Your task to perform on an android device: Open eBay Image 0: 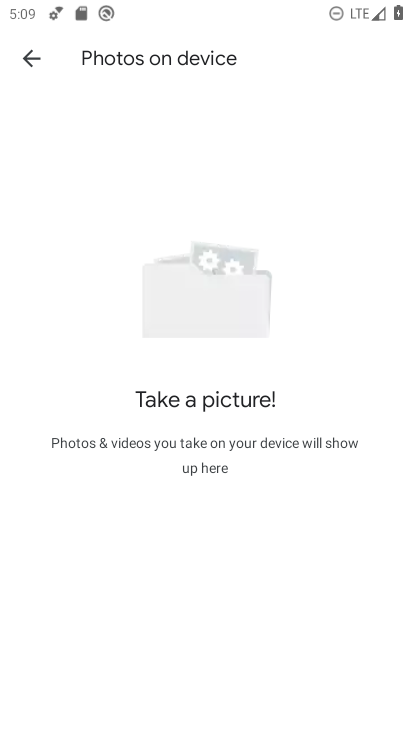
Step 0: press home button
Your task to perform on an android device: Open eBay Image 1: 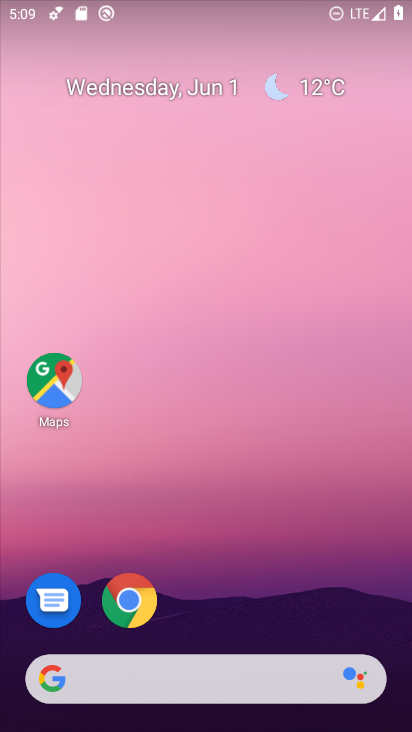
Step 1: click (130, 598)
Your task to perform on an android device: Open eBay Image 2: 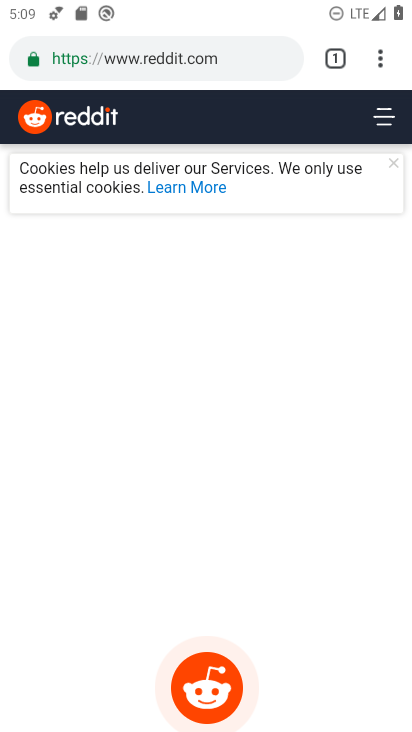
Step 2: click (236, 53)
Your task to perform on an android device: Open eBay Image 3: 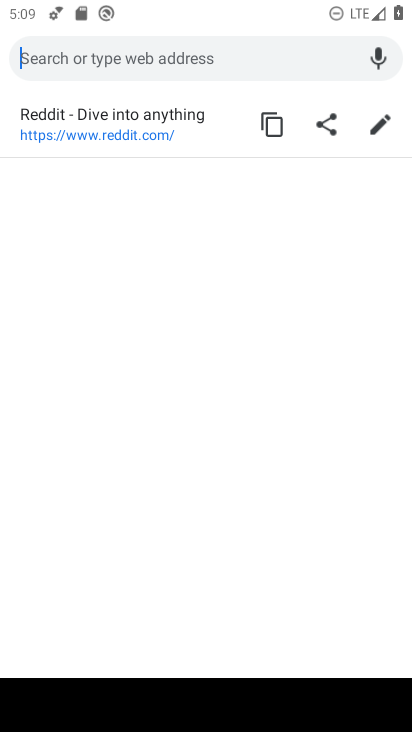
Step 3: type "ebay"
Your task to perform on an android device: Open eBay Image 4: 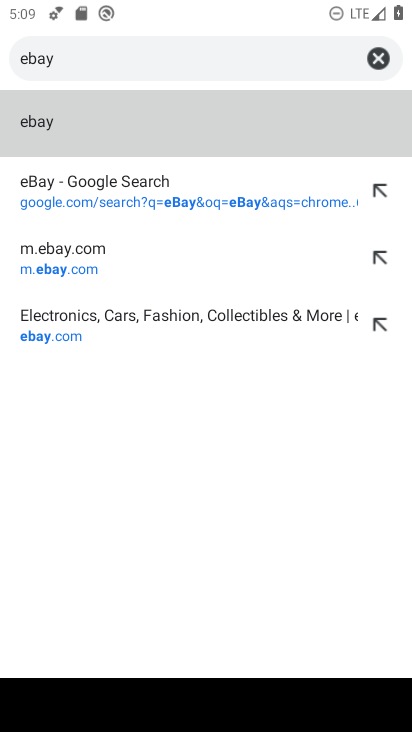
Step 4: click (42, 117)
Your task to perform on an android device: Open eBay Image 5: 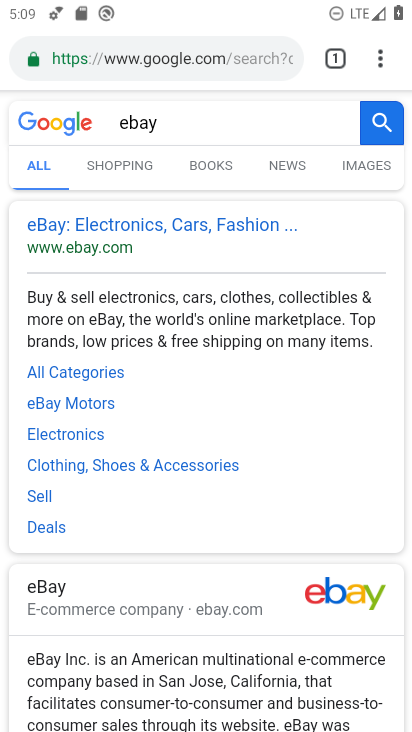
Step 5: click (67, 228)
Your task to perform on an android device: Open eBay Image 6: 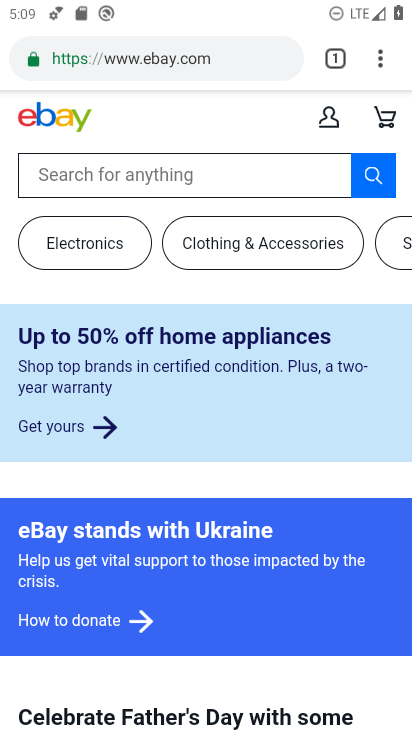
Step 6: task complete